Your task to perform on an android device: turn off smart reply in the gmail app Image 0: 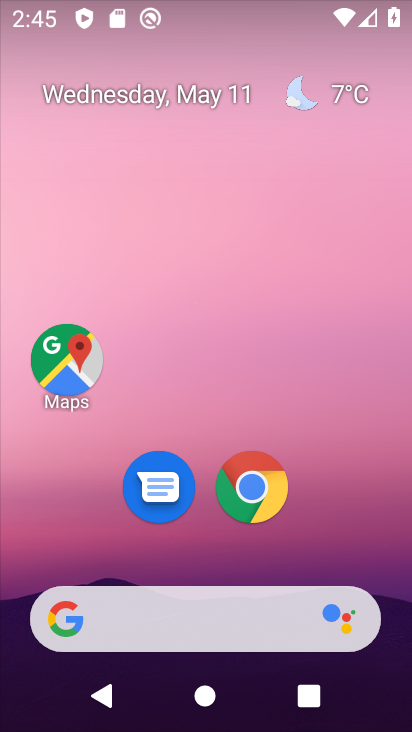
Step 0: drag from (197, 492) to (229, 60)
Your task to perform on an android device: turn off smart reply in the gmail app Image 1: 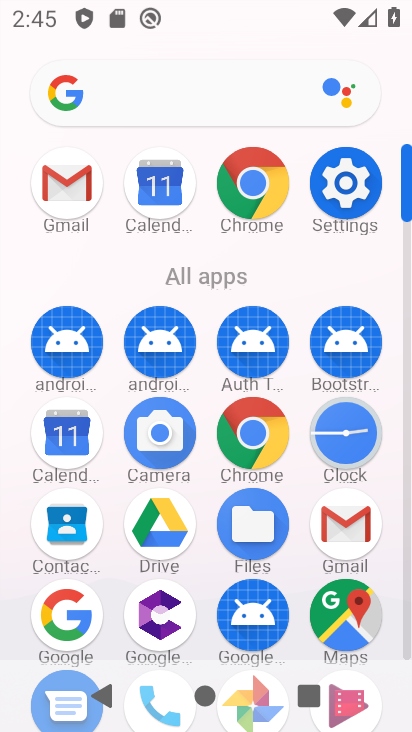
Step 1: click (351, 516)
Your task to perform on an android device: turn off smart reply in the gmail app Image 2: 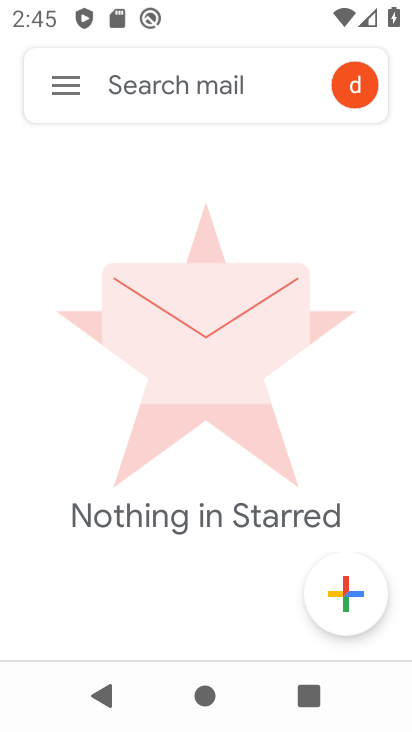
Step 2: click (66, 83)
Your task to perform on an android device: turn off smart reply in the gmail app Image 3: 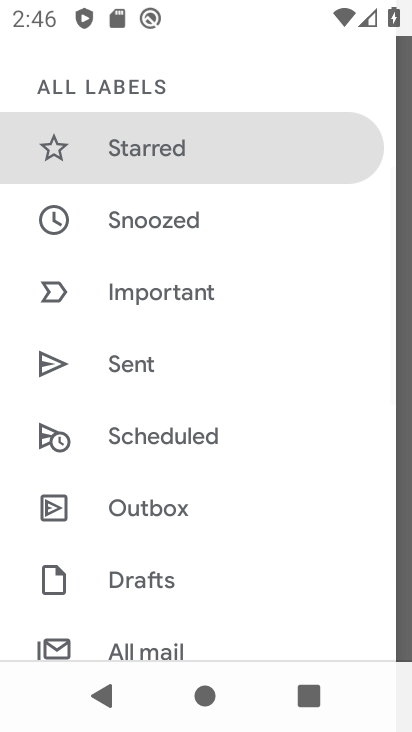
Step 3: drag from (242, 645) to (241, 142)
Your task to perform on an android device: turn off smart reply in the gmail app Image 4: 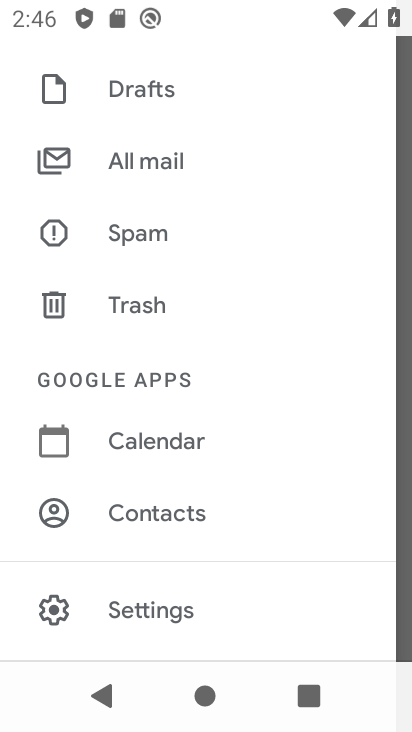
Step 4: click (145, 610)
Your task to perform on an android device: turn off smart reply in the gmail app Image 5: 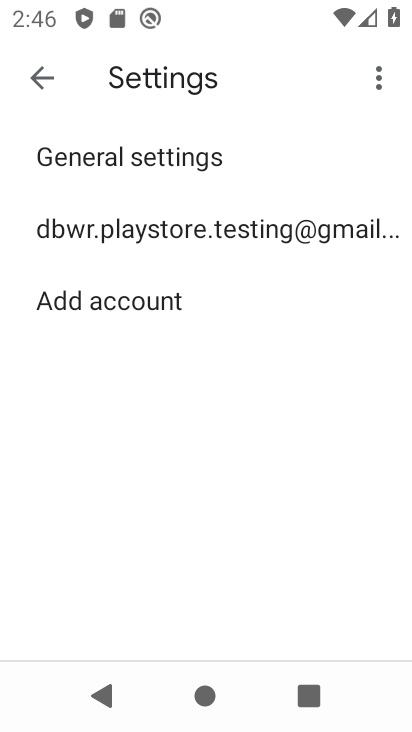
Step 5: click (142, 244)
Your task to perform on an android device: turn off smart reply in the gmail app Image 6: 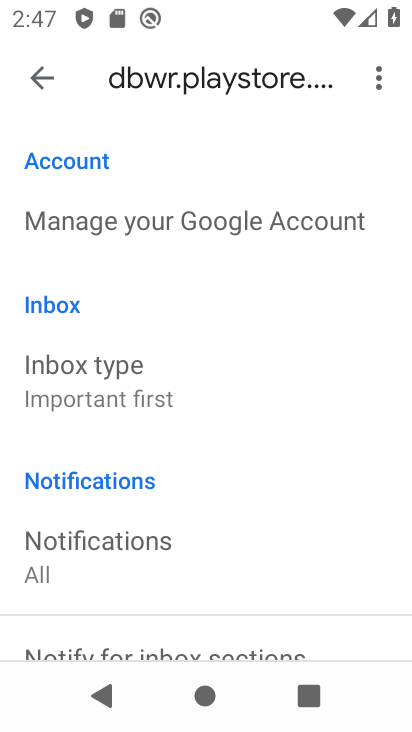
Step 6: drag from (151, 598) to (230, 92)
Your task to perform on an android device: turn off smart reply in the gmail app Image 7: 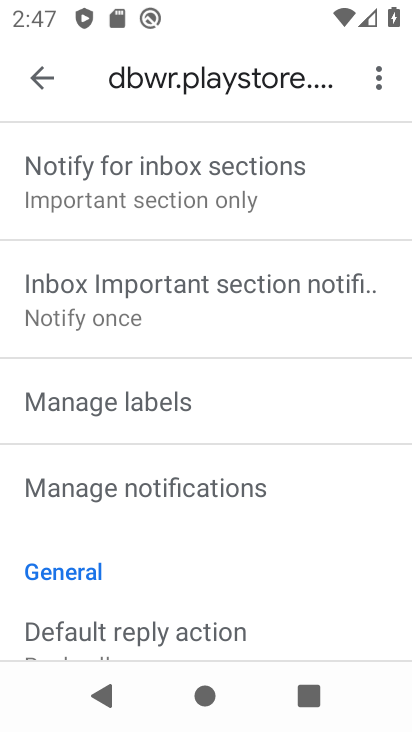
Step 7: drag from (215, 575) to (238, 249)
Your task to perform on an android device: turn off smart reply in the gmail app Image 8: 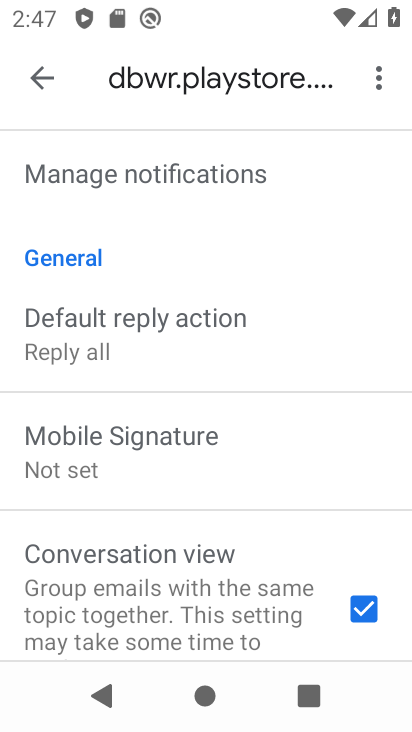
Step 8: drag from (151, 612) to (167, 296)
Your task to perform on an android device: turn off smart reply in the gmail app Image 9: 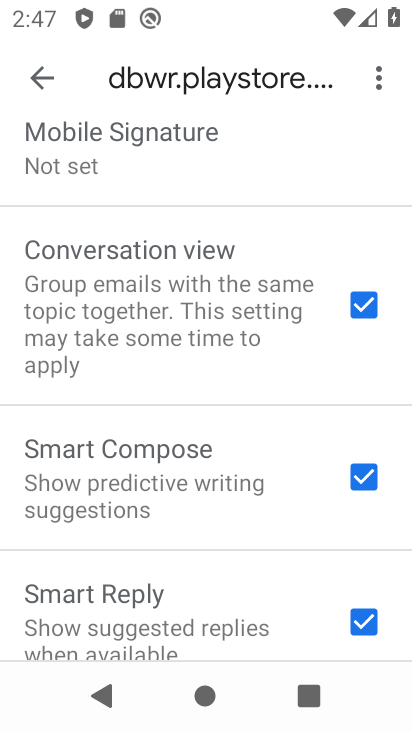
Step 9: click (352, 618)
Your task to perform on an android device: turn off smart reply in the gmail app Image 10: 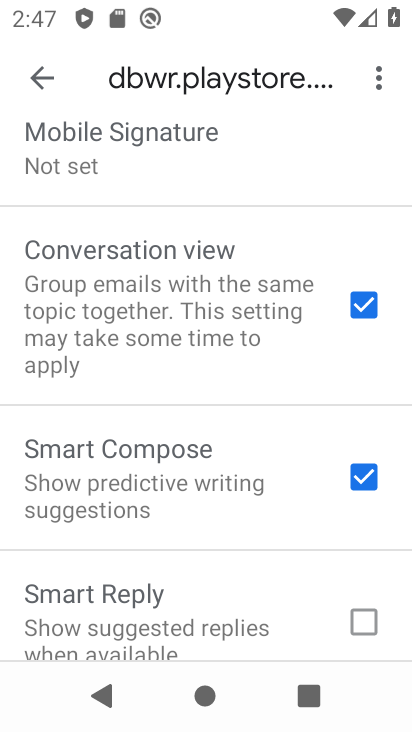
Step 10: task complete